Your task to perform on an android device: check data usage Image 0: 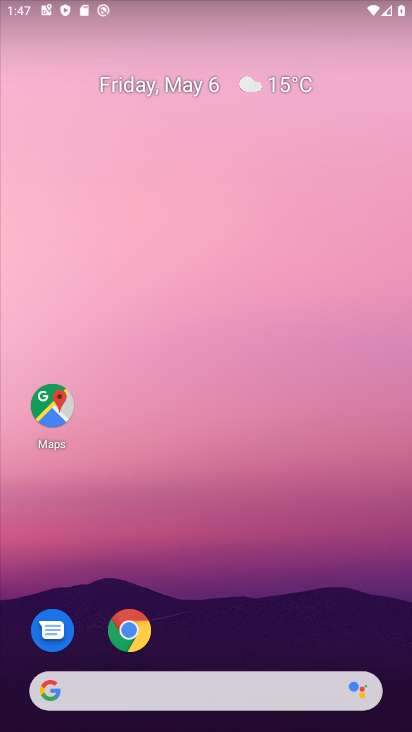
Step 0: drag from (190, 610) to (271, 8)
Your task to perform on an android device: check data usage Image 1: 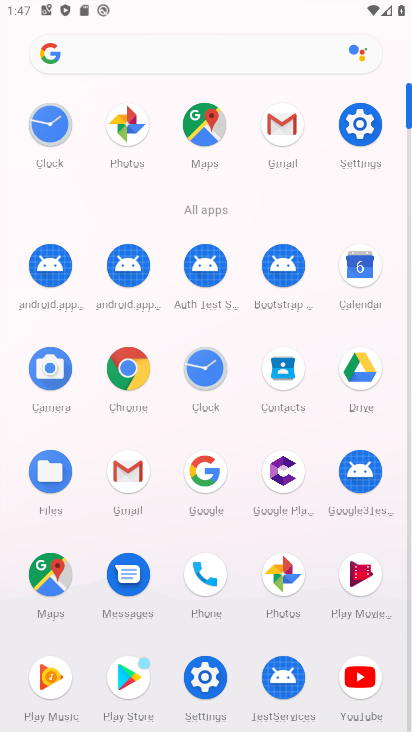
Step 1: click (360, 134)
Your task to perform on an android device: check data usage Image 2: 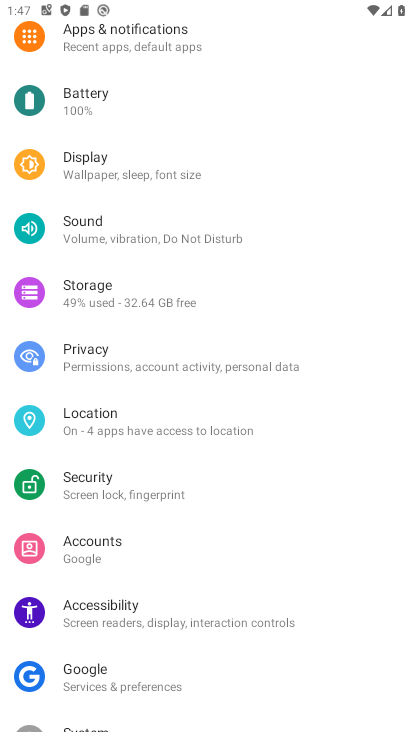
Step 2: drag from (164, 124) to (143, 694)
Your task to perform on an android device: check data usage Image 3: 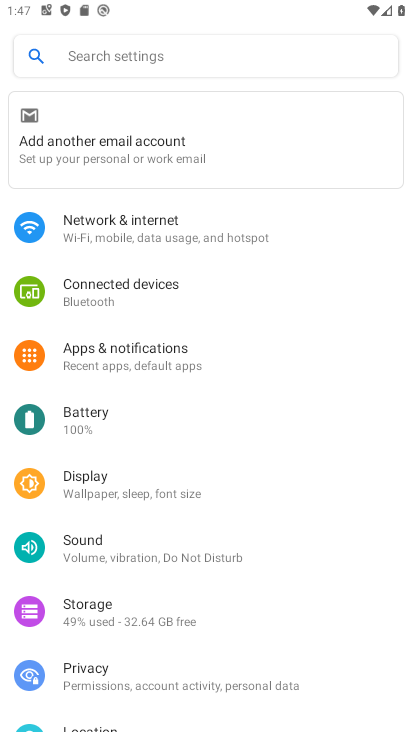
Step 3: click (174, 246)
Your task to perform on an android device: check data usage Image 4: 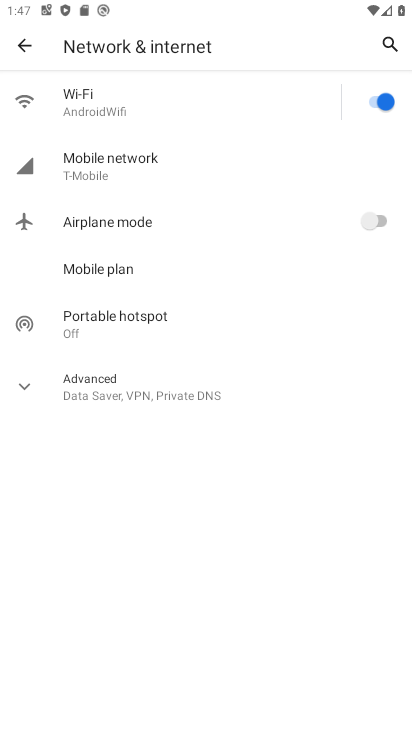
Step 4: click (148, 157)
Your task to perform on an android device: check data usage Image 5: 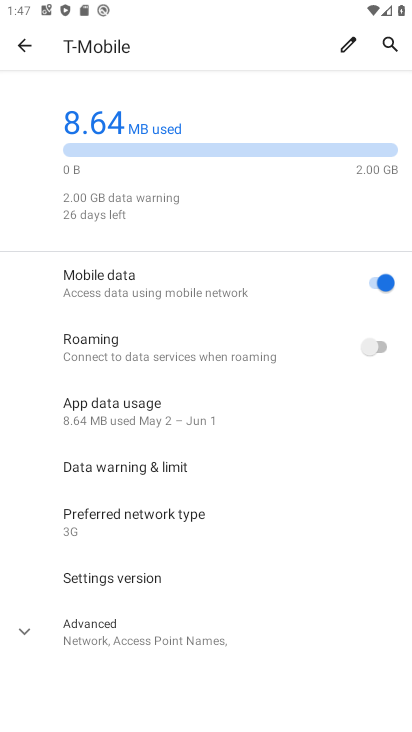
Step 5: task complete